Your task to perform on an android device: check android version Image 0: 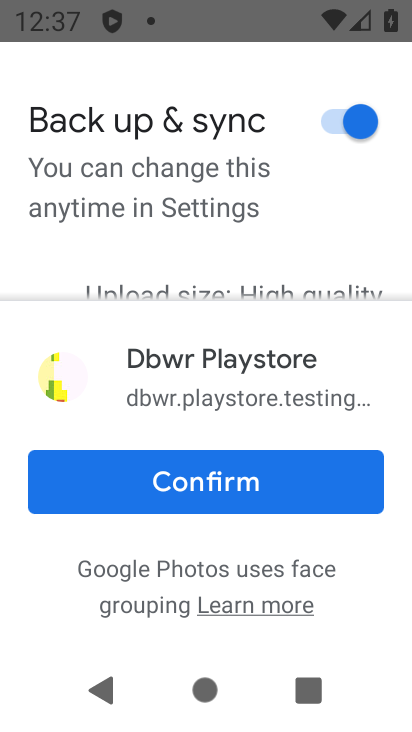
Step 0: press home button
Your task to perform on an android device: check android version Image 1: 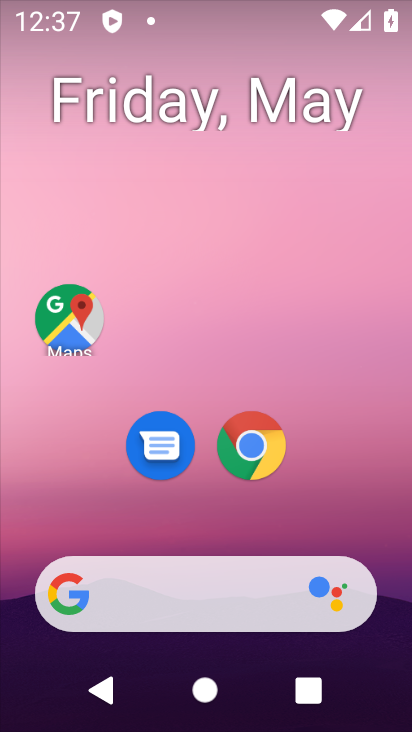
Step 1: drag from (394, 608) to (321, 1)
Your task to perform on an android device: check android version Image 2: 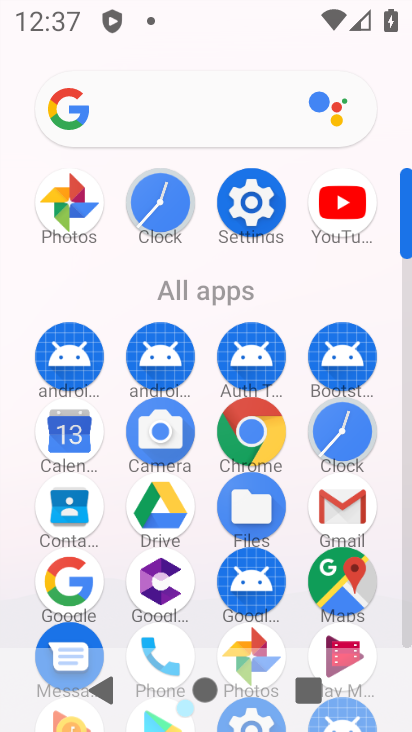
Step 2: click (404, 634)
Your task to perform on an android device: check android version Image 3: 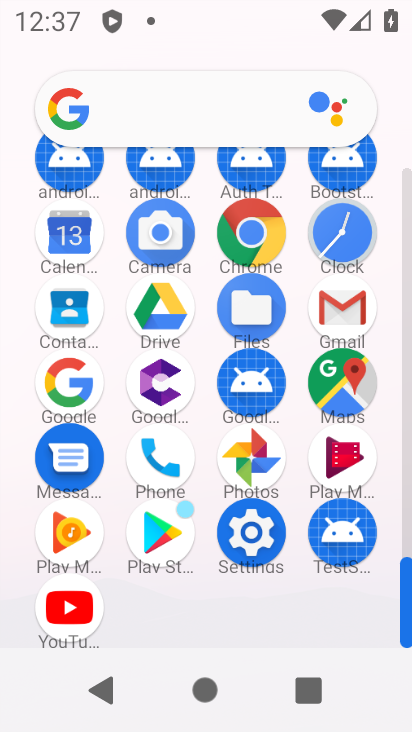
Step 3: click (248, 527)
Your task to perform on an android device: check android version Image 4: 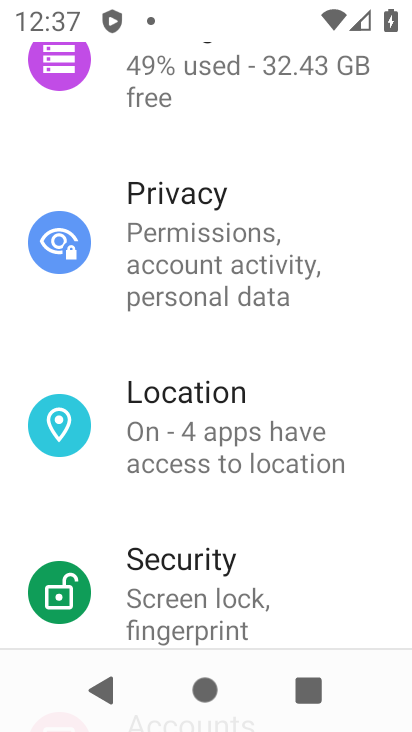
Step 4: drag from (291, 622) to (335, 99)
Your task to perform on an android device: check android version Image 5: 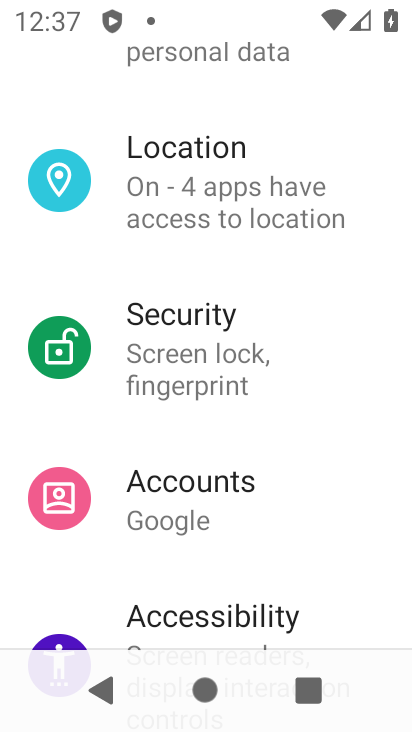
Step 5: drag from (317, 558) to (309, 128)
Your task to perform on an android device: check android version Image 6: 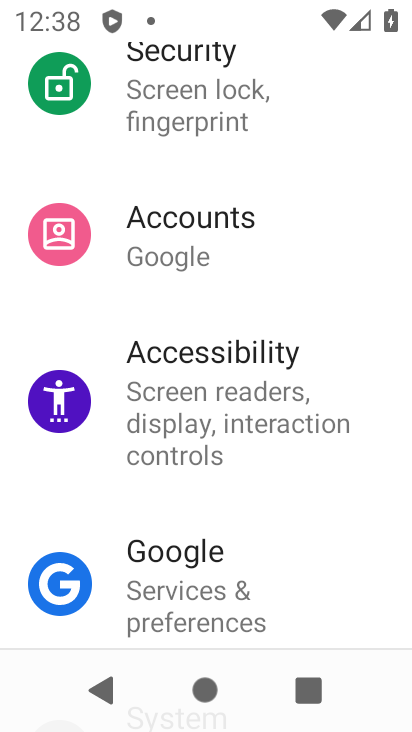
Step 6: drag from (329, 531) to (365, 148)
Your task to perform on an android device: check android version Image 7: 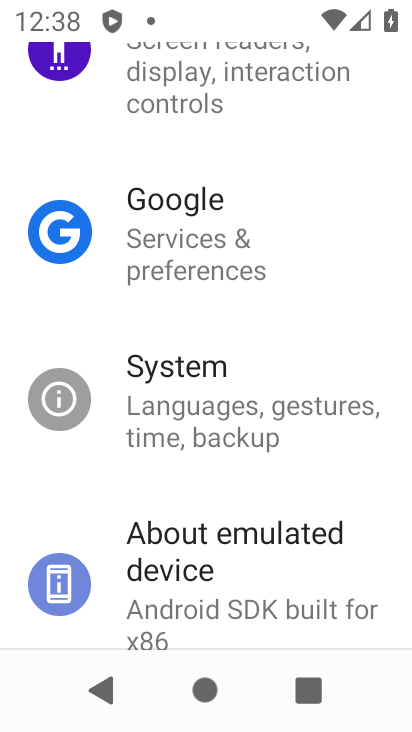
Step 7: drag from (318, 531) to (362, 70)
Your task to perform on an android device: check android version Image 8: 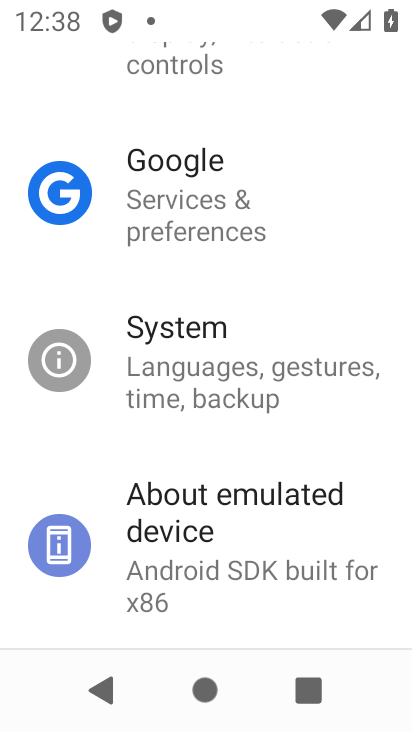
Step 8: click (155, 528)
Your task to perform on an android device: check android version Image 9: 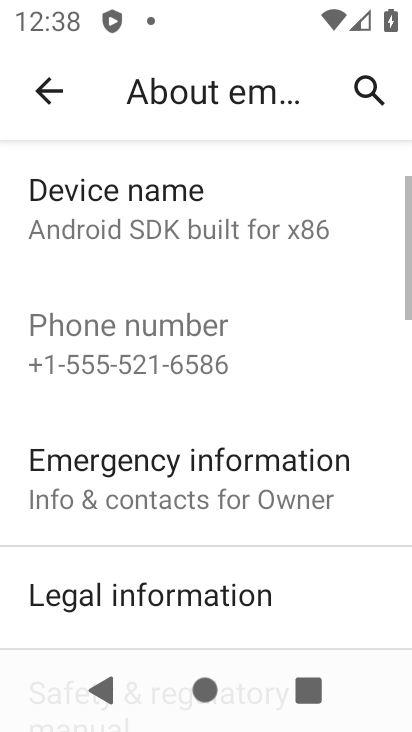
Step 9: drag from (325, 604) to (327, 246)
Your task to perform on an android device: check android version Image 10: 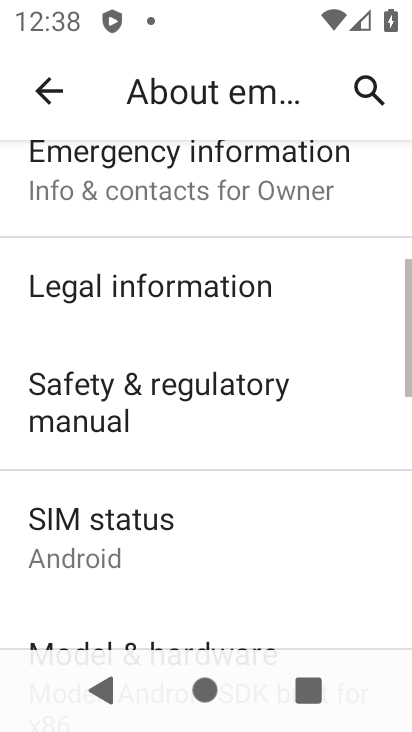
Step 10: drag from (332, 563) to (358, 236)
Your task to perform on an android device: check android version Image 11: 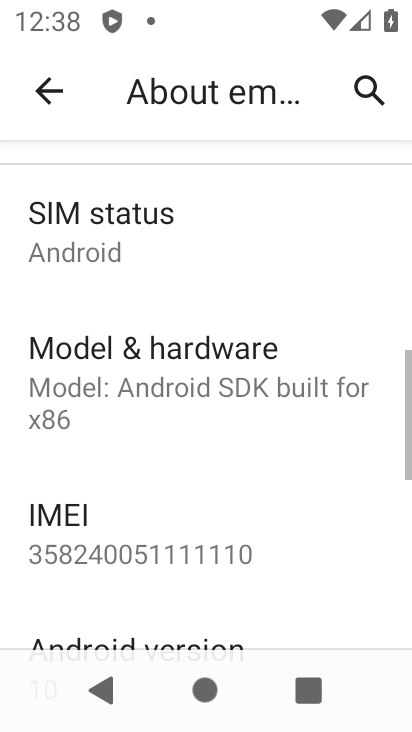
Step 11: drag from (310, 531) to (314, 196)
Your task to perform on an android device: check android version Image 12: 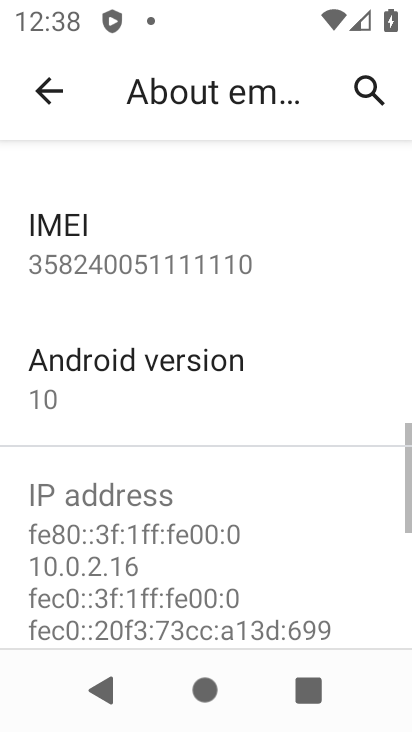
Step 12: click (67, 353)
Your task to perform on an android device: check android version Image 13: 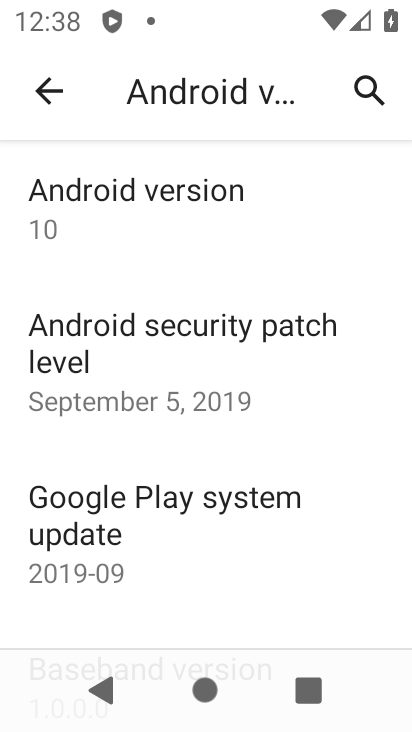
Step 13: task complete